Your task to perform on an android device: Search for "razer blade" on amazon.com, select the first entry, add it to the cart, then select checkout. Image 0: 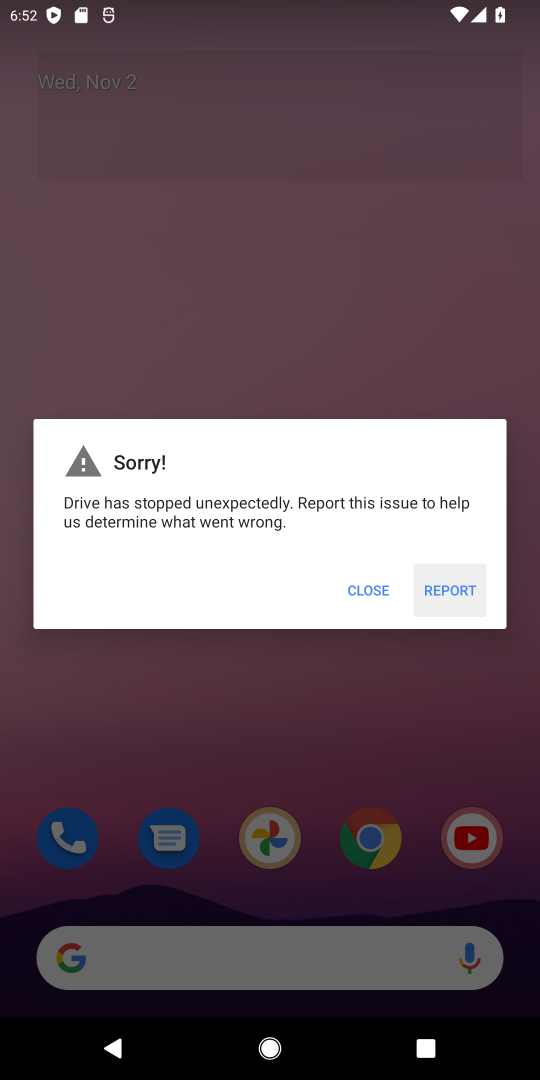
Step 0: press home button
Your task to perform on an android device: Search for "razer blade" on amazon.com, select the first entry, add it to the cart, then select checkout. Image 1: 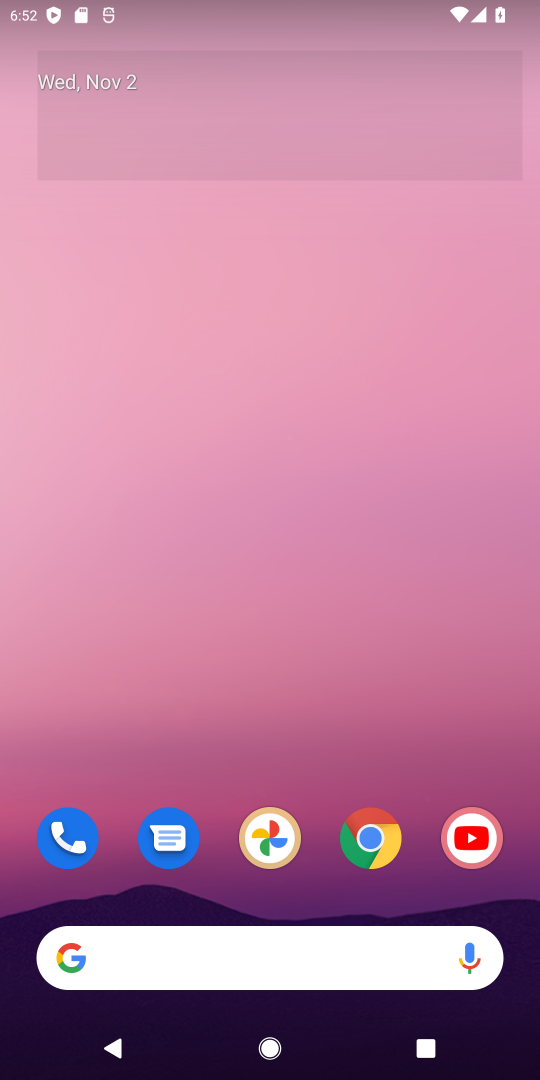
Step 1: click (377, 852)
Your task to perform on an android device: Search for "razer blade" on amazon.com, select the first entry, add it to the cart, then select checkout. Image 2: 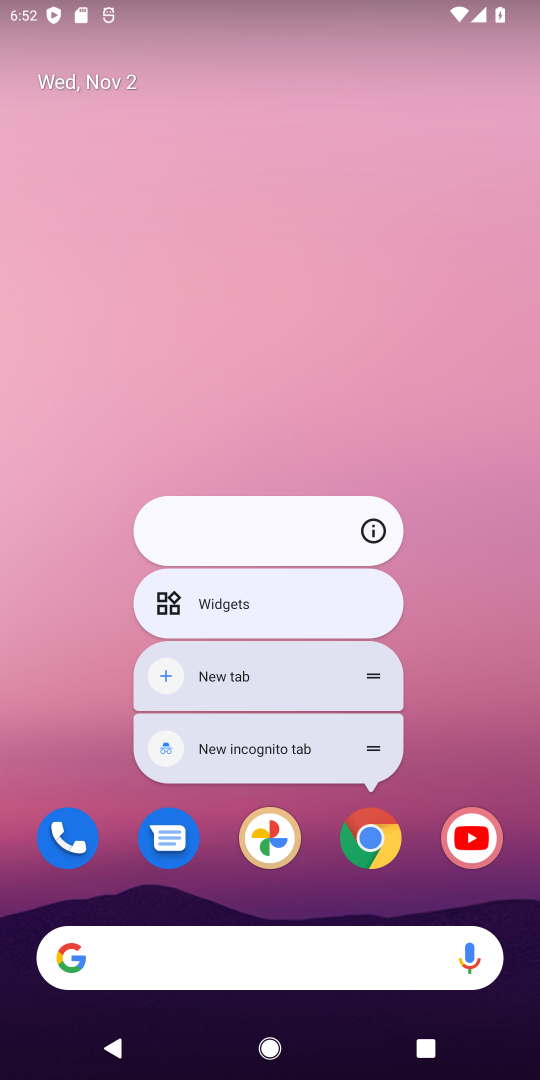
Step 2: click (368, 856)
Your task to perform on an android device: Search for "razer blade" on amazon.com, select the first entry, add it to the cart, then select checkout. Image 3: 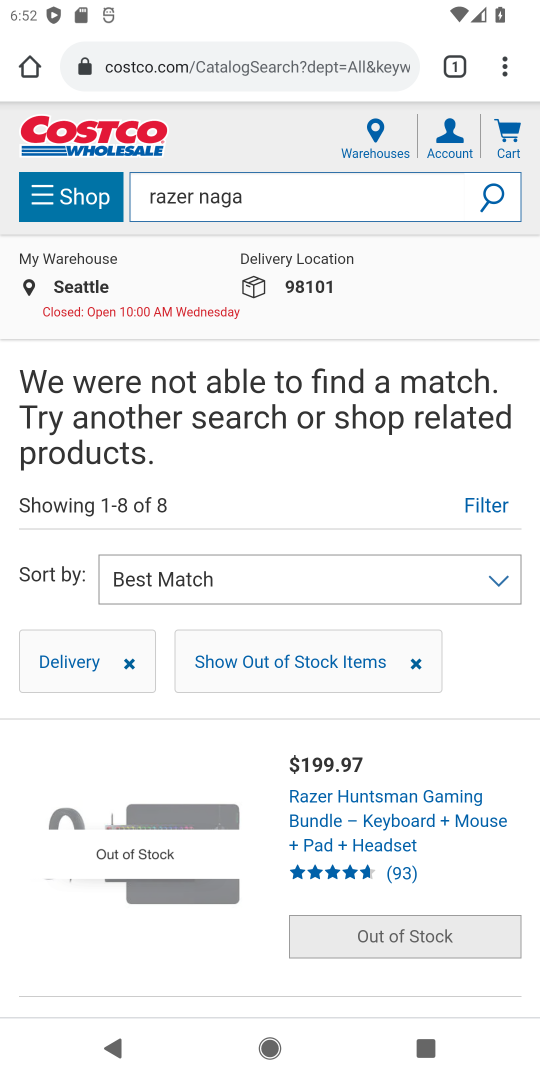
Step 3: click (237, 75)
Your task to perform on an android device: Search for "razer blade" on amazon.com, select the first entry, add it to the cart, then select checkout. Image 4: 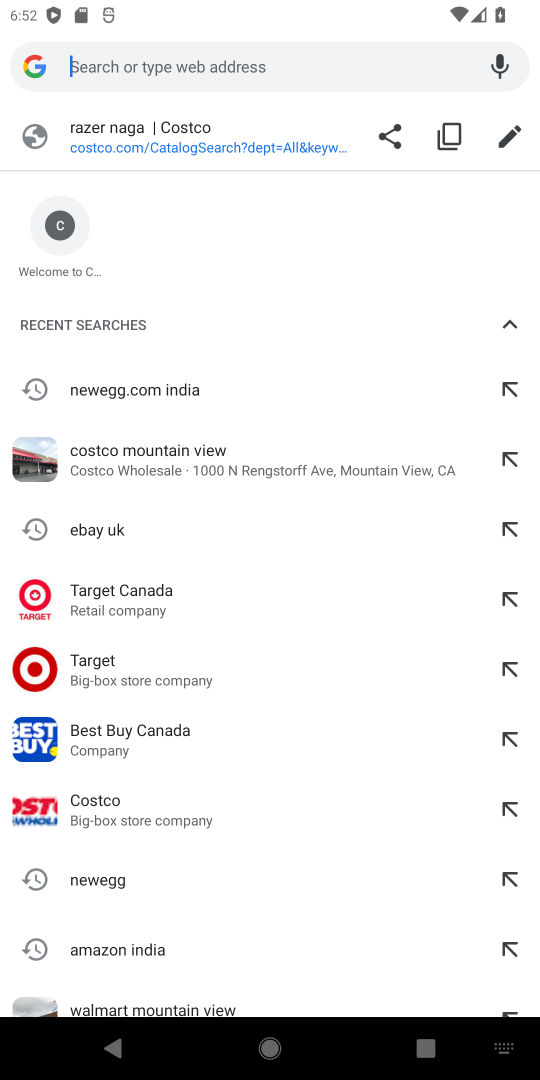
Step 4: type "amazon.com"
Your task to perform on an android device: Search for "razer blade" on amazon.com, select the first entry, add it to the cart, then select checkout. Image 5: 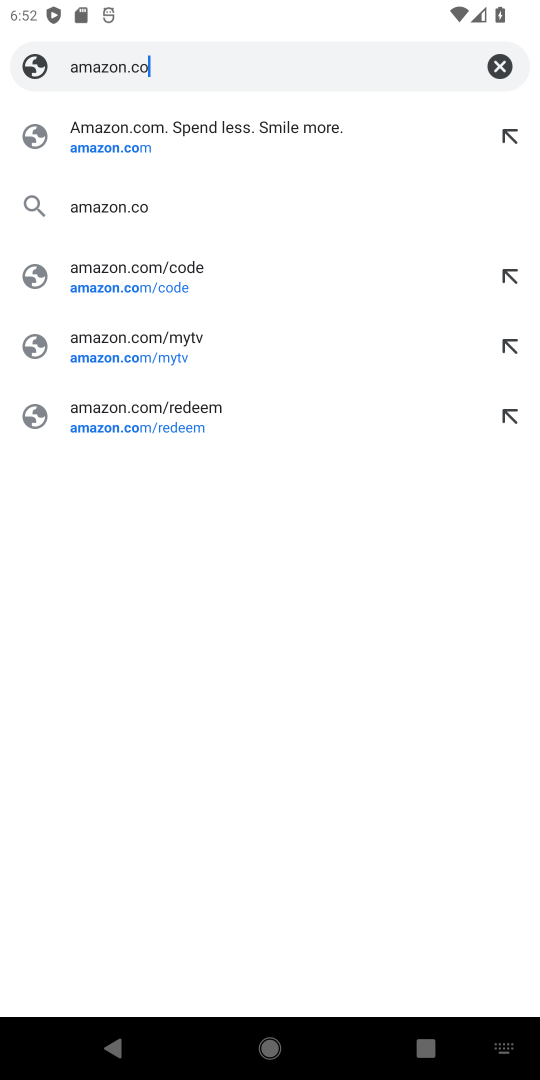
Step 5: type ""
Your task to perform on an android device: Search for "razer blade" on amazon.com, select the first entry, add it to the cart, then select checkout. Image 6: 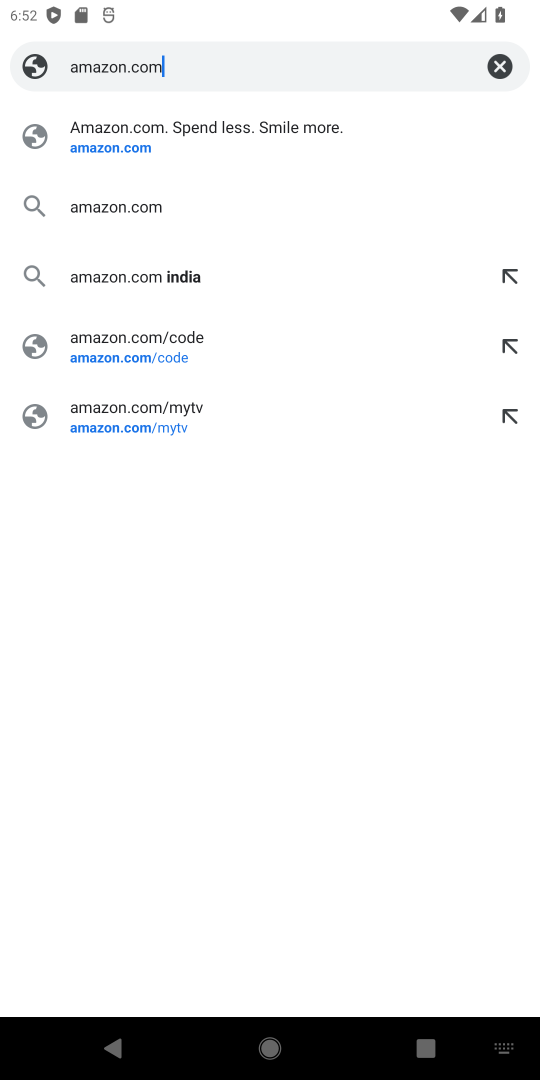
Step 6: press enter
Your task to perform on an android device: Search for "razer blade" on amazon.com, select the first entry, add it to the cart, then select checkout. Image 7: 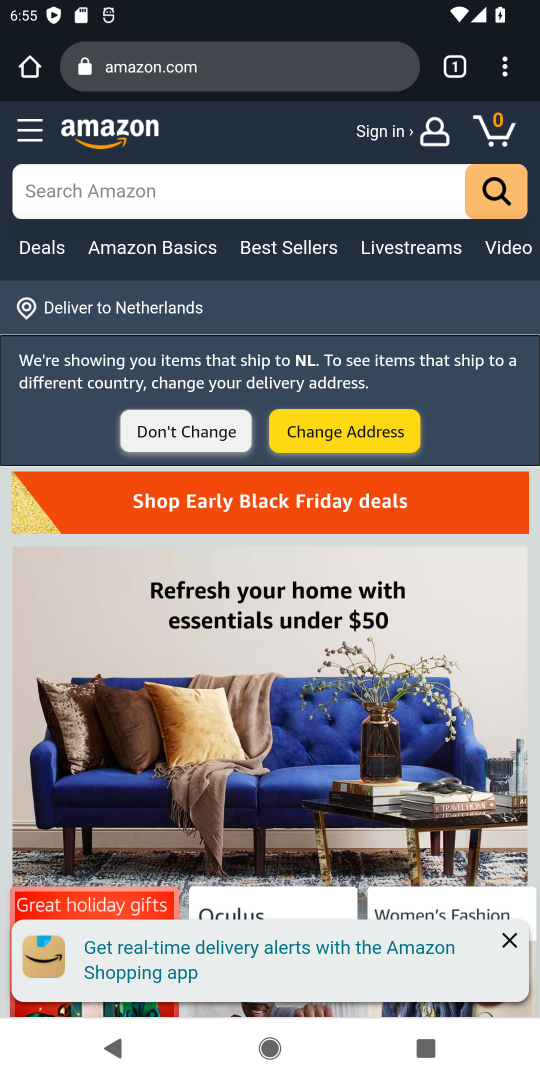
Step 7: click (190, 179)
Your task to perform on an android device: Search for "razer blade" on amazon.com, select the first entry, add it to the cart, then select checkout. Image 8: 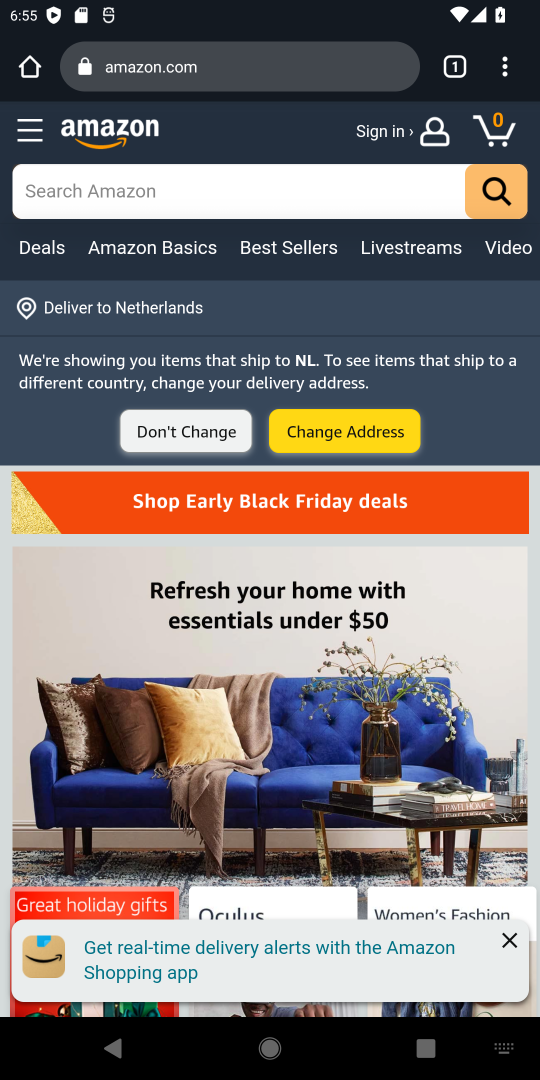
Step 8: type "razer blade"
Your task to perform on an android device: Search for "razer blade" on amazon.com, select the first entry, add it to the cart, then select checkout. Image 9: 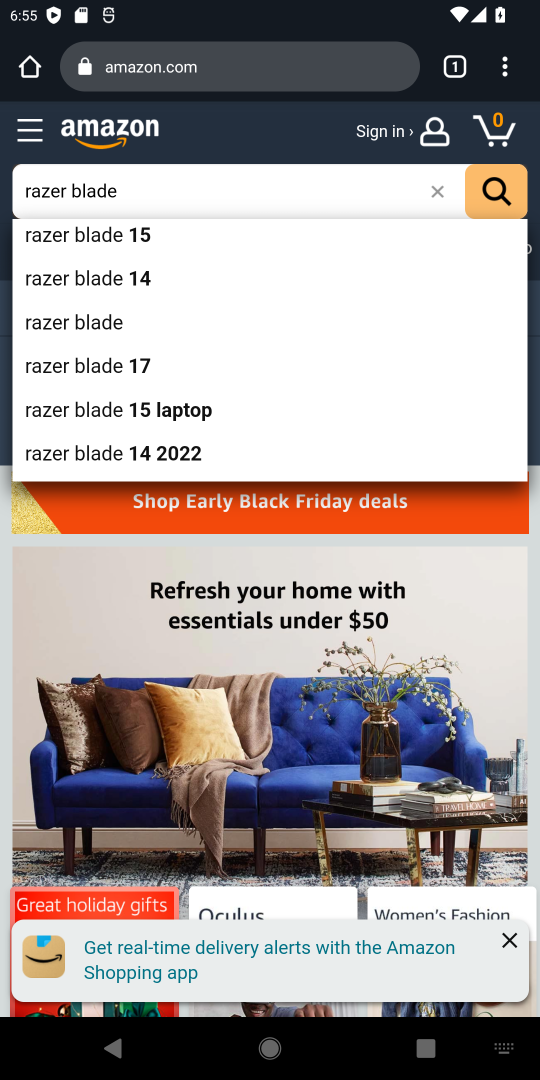
Step 9: press enter
Your task to perform on an android device: Search for "razer blade" on amazon.com, select the first entry, add it to the cart, then select checkout. Image 10: 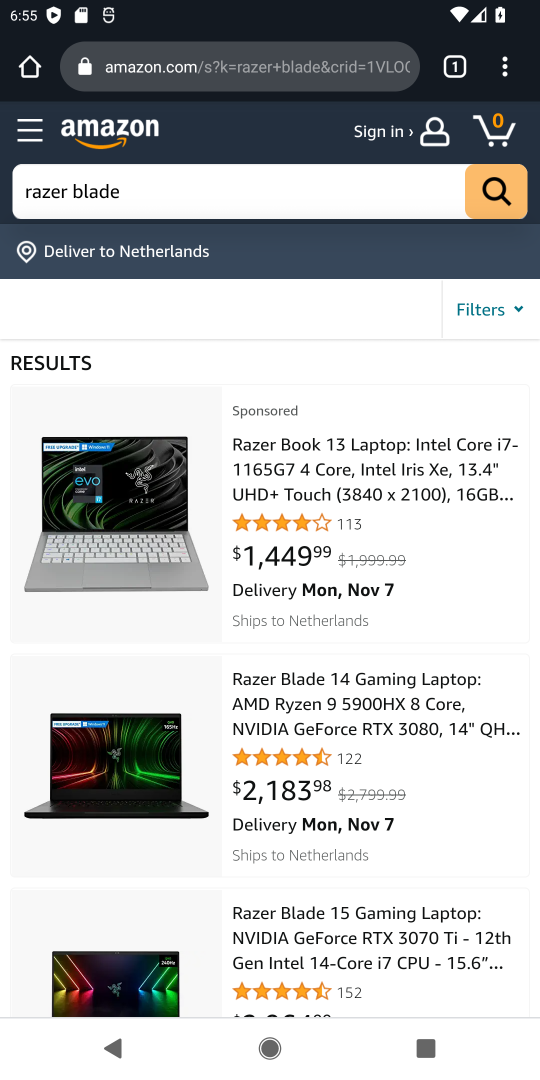
Step 10: drag from (395, 760) to (407, 666)
Your task to perform on an android device: Search for "razer blade" on amazon.com, select the first entry, add it to the cart, then select checkout. Image 11: 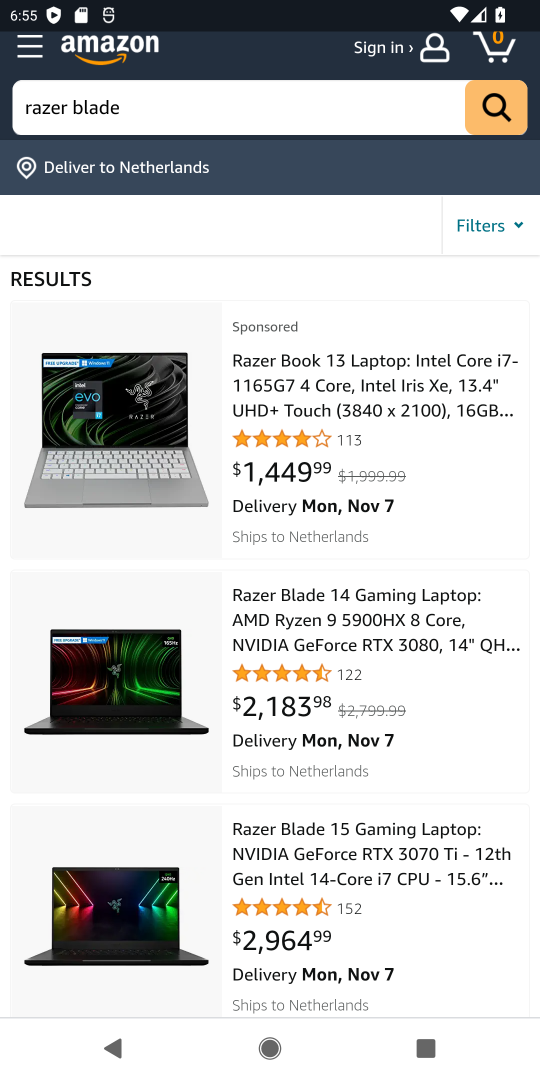
Step 11: click (374, 813)
Your task to perform on an android device: Search for "razer blade" on amazon.com, select the first entry, add it to the cart, then select checkout. Image 12: 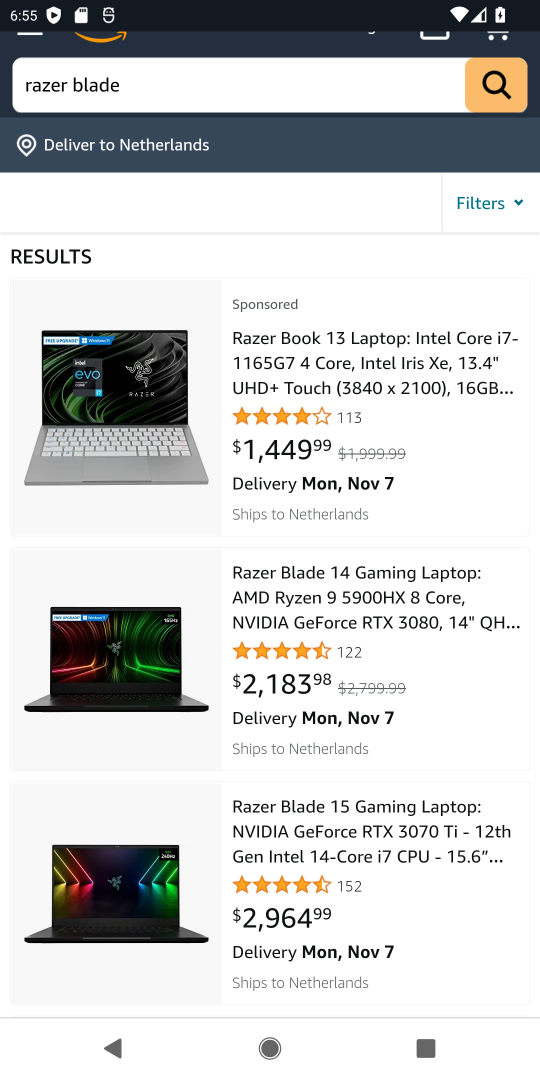
Step 12: click (379, 343)
Your task to perform on an android device: Search for "razer blade" on amazon.com, select the first entry, add it to the cart, then select checkout. Image 13: 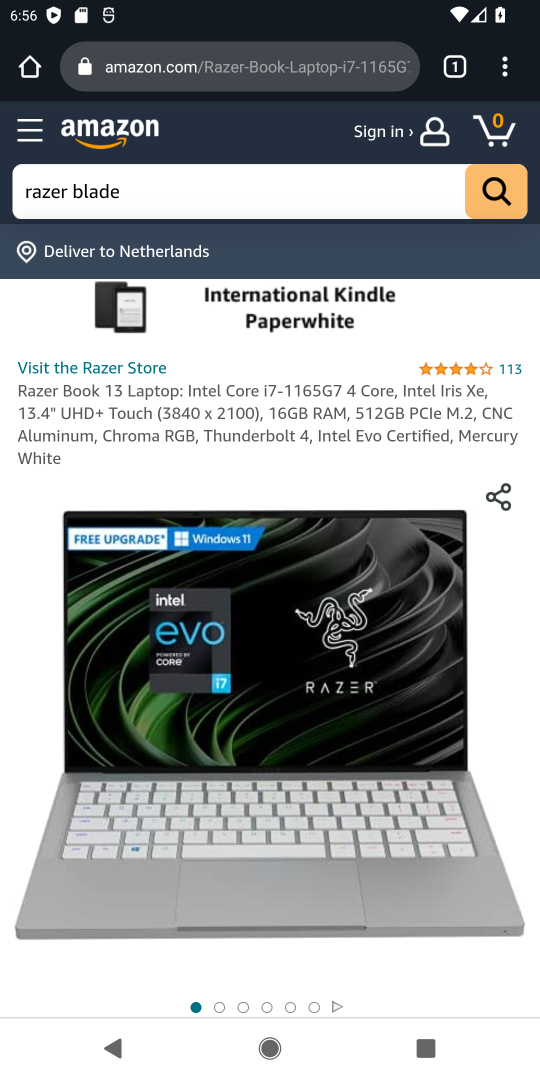
Step 13: drag from (367, 704) to (324, 204)
Your task to perform on an android device: Search for "razer blade" on amazon.com, select the first entry, add it to the cart, then select checkout. Image 14: 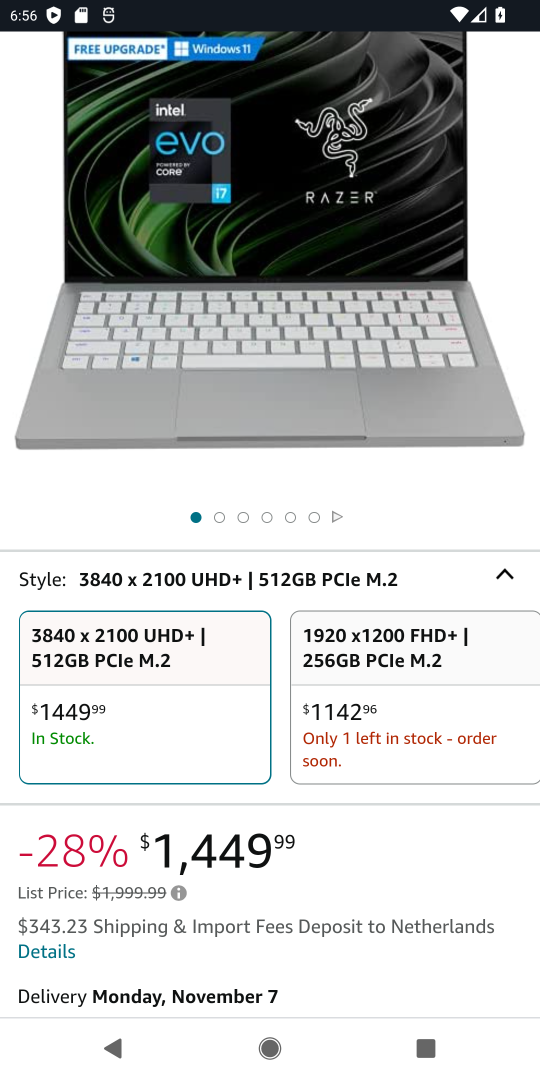
Step 14: drag from (355, 738) to (382, 188)
Your task to perform on an android device: Search for "razer blade" on amazon.com, select the first entry, add it to the cart, then select checkout. Image 15: 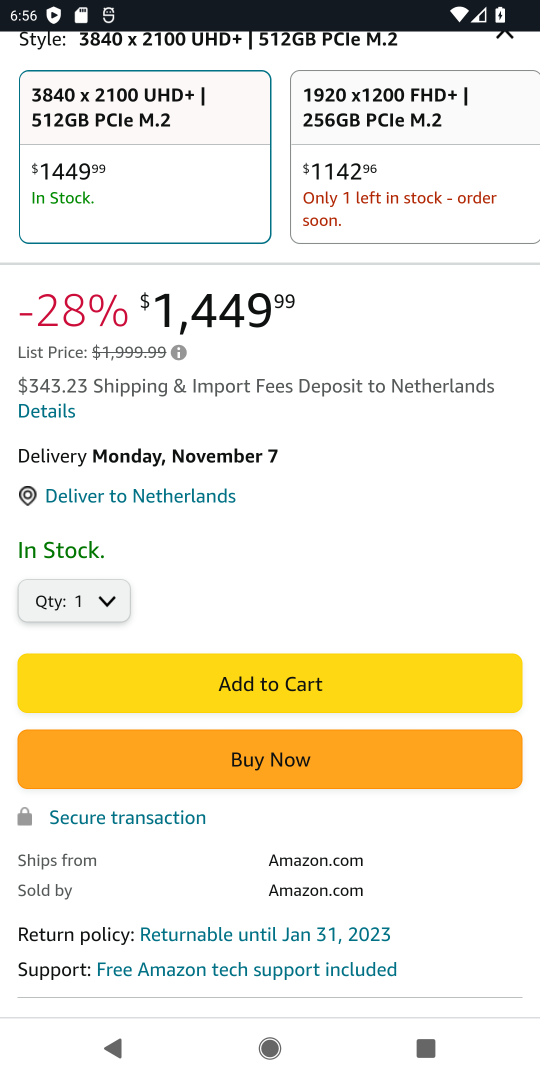
Step 15: click (261, 677)
Your task to perform on an android device: Search for "razer blade" on amazon.com, select the first entry, add it to the cart, then select checkout. Image 16: 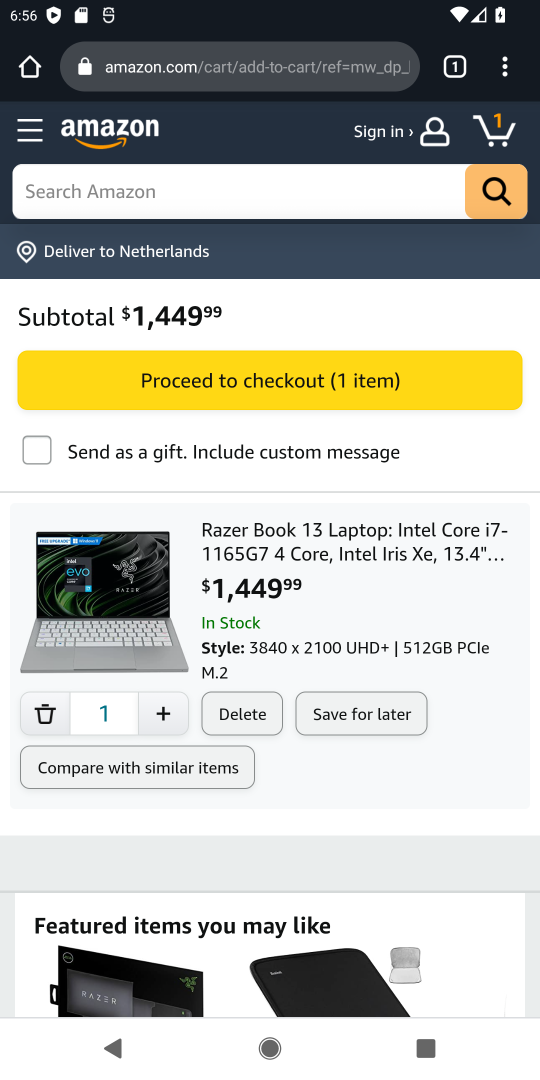
Step 16: click (326, 390)
Your task to perform on an android device: Search for "razer blade" on amazon.com, select the first entry, add it to the cart, then select checkout. Image 17: 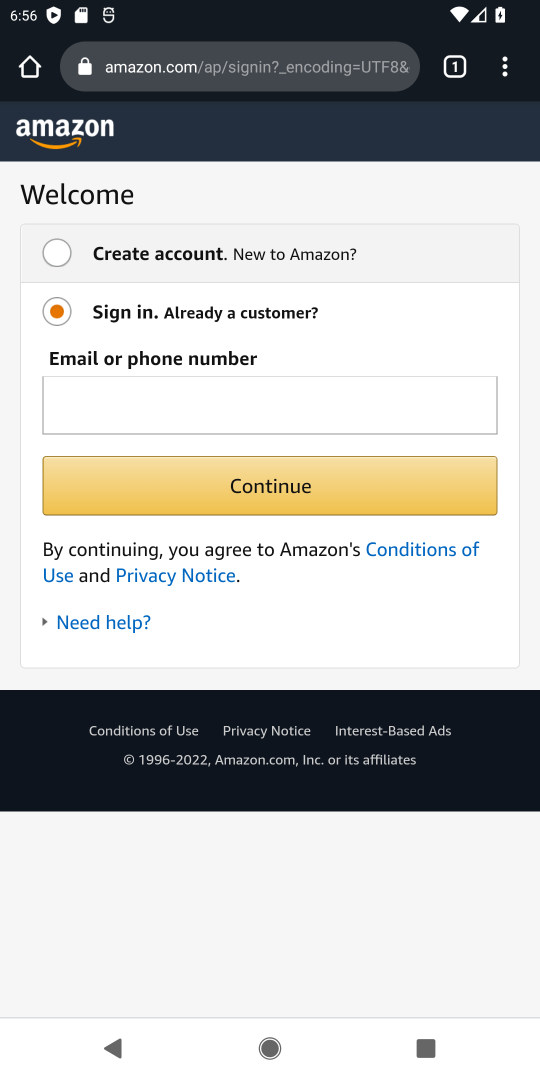
Step 17: task complete